Your task to perform on an android device: Go to network settings Image 0: 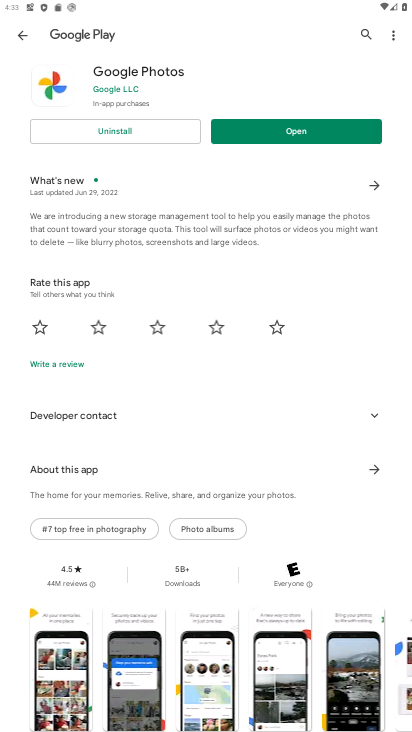
Step 0: press home button
Your task to perform on an android device: Go to network settings Image 1: 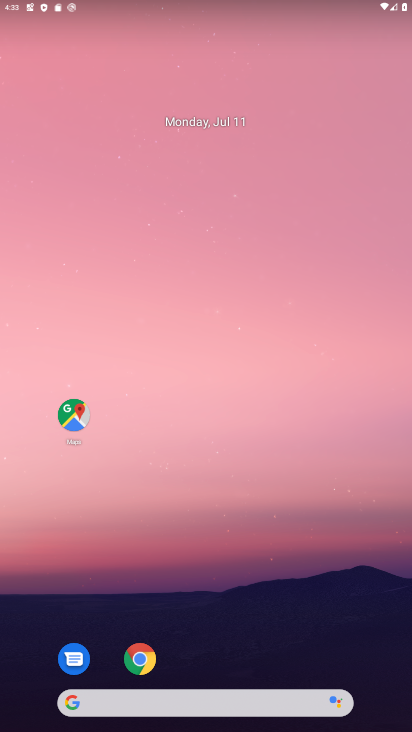
Step 1: drag from (187, 664) to (67, 18)
Your task to perform on an android device: Go to network settings Image 2: 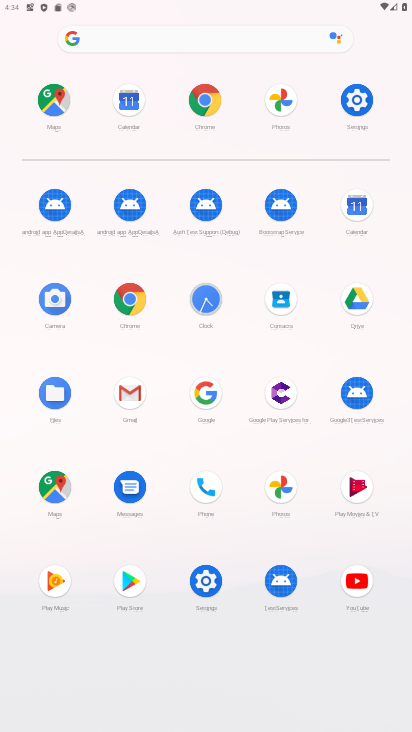
Step 2: click (347, 112)
Your task to perform on an android device: Go to network settings Image 3: 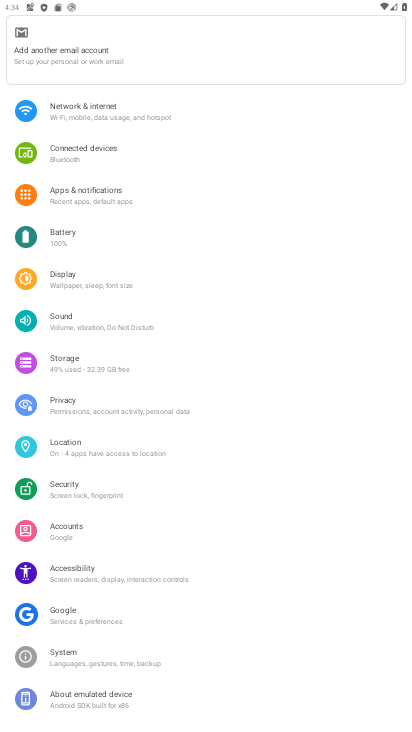
Step 3: click (152, 119)
Your task to perform on an android device: Go to network settings Image 4: 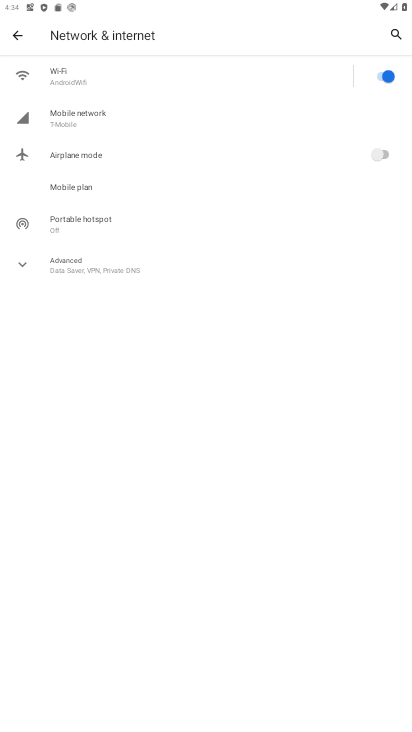
Step 4: click (125, 117)
Your task to perform on an android device: Go to network settings Image 5: 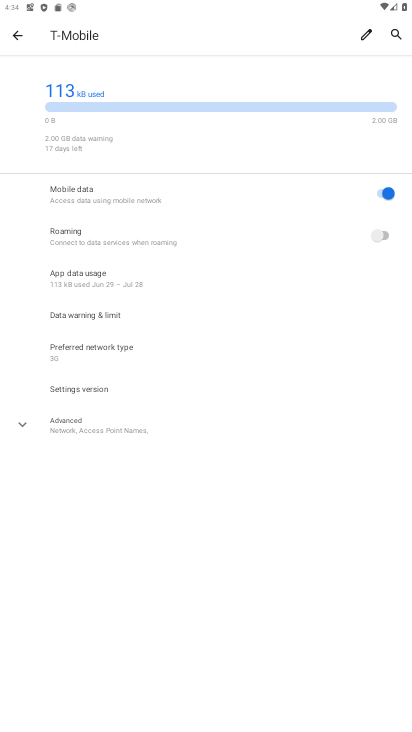
Step 5: task complete